Your task to perform on an android device: Open Chrome and go to the settings page Image 0: 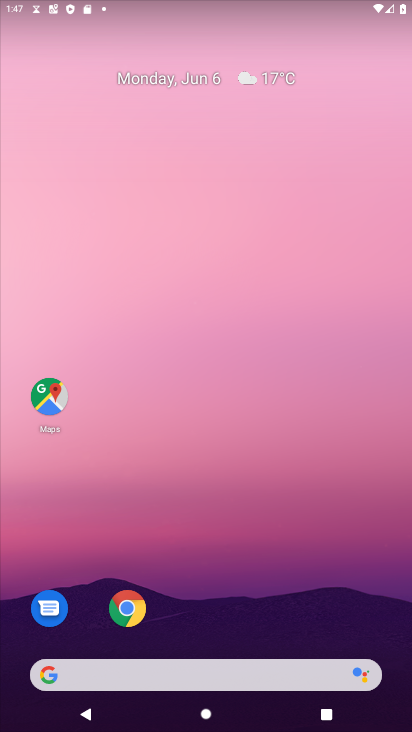
Step 0: drag from (265, 597) to (345, 29)
Your task to perform on an android device: Open Chrome and go to the settings page Image 1: 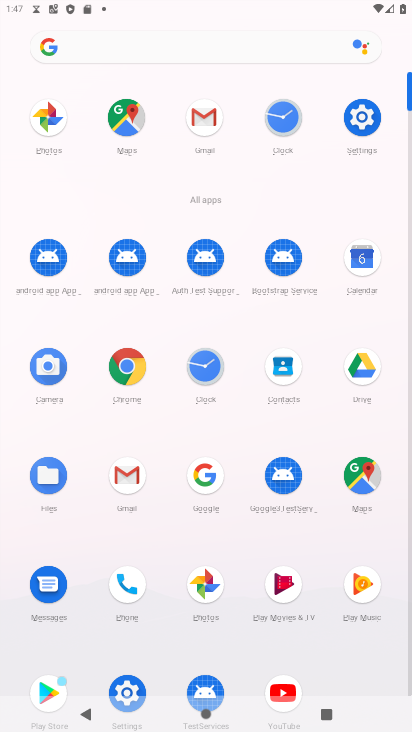
Step 1: click (142, 361)
Your task to perform on an android device: Open Chrome and go to the settings page Image 2: 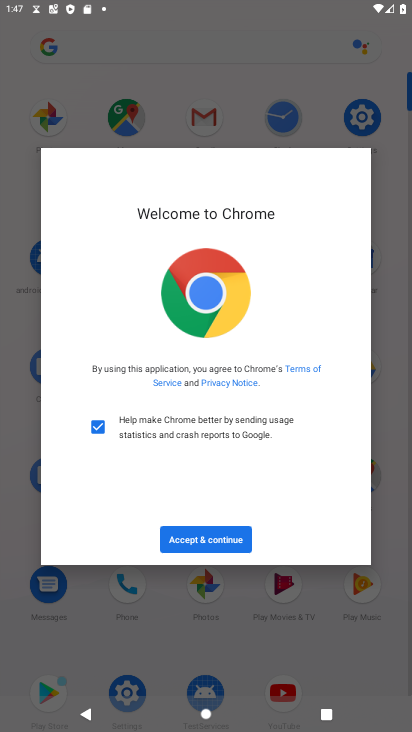
Step 2: click (209, 543)
Your task to perform on an android device: Open Chrome and go to the settings page Image 3: 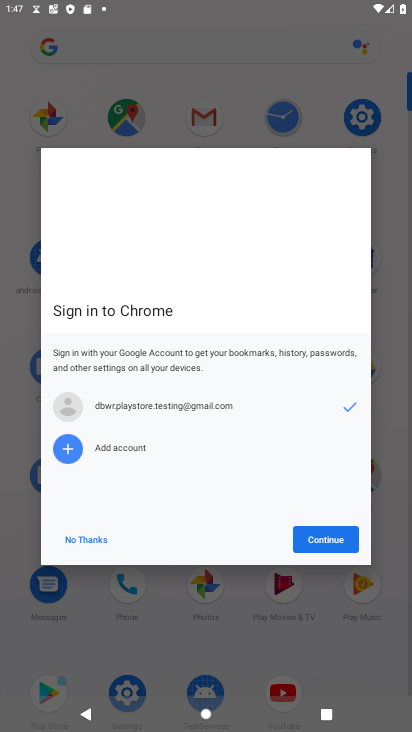
Step 3: click (90, 537)
Your task to perform on an android device: Open Chrome and go to the settings page Image 4: 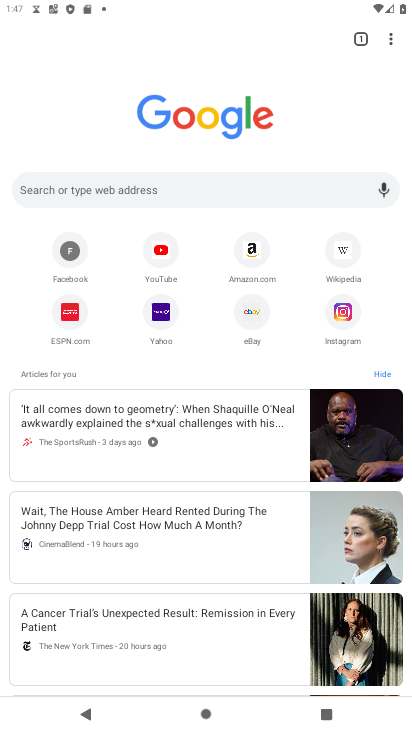
Step 4: task complete